Your task to perform on an android device: Open Chrome and go to settings Image 0: 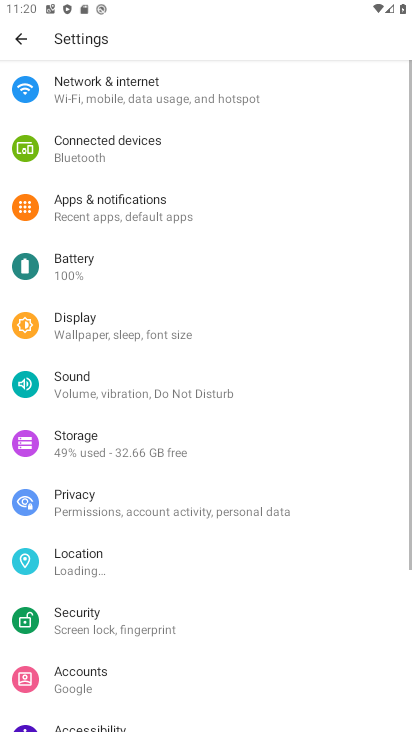
Step 0: press home button
Your task to perform on an android device: Open Chrome and go to settings Image 1: 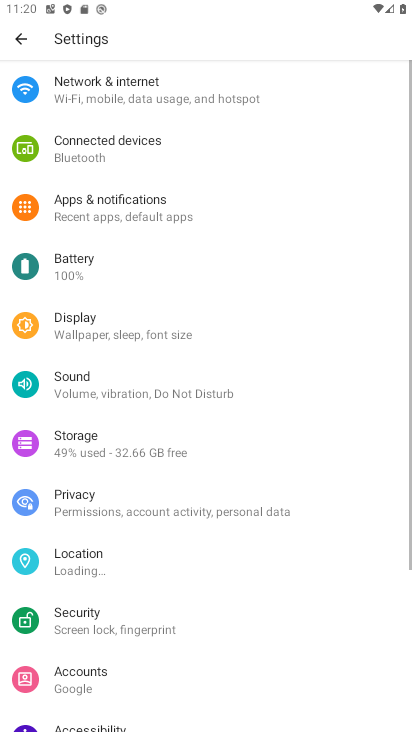
Step 1: press home button
Your task to perform on an android device: Open Chrome and go to settings Image 2: 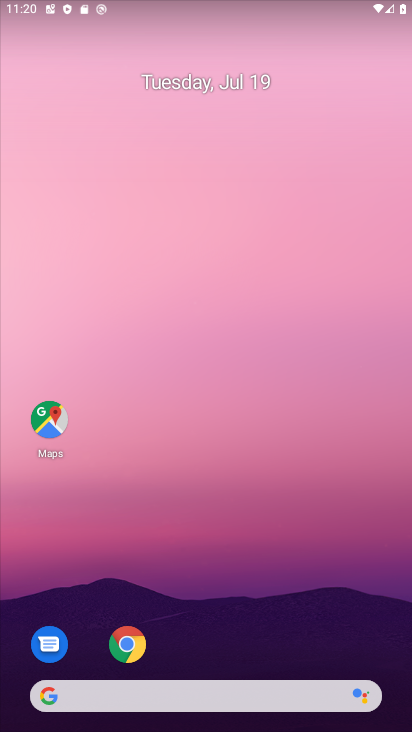
Step 2: click (122, 638)
Your task to perform on an android device: Open Chrome and go to settings Image 3: 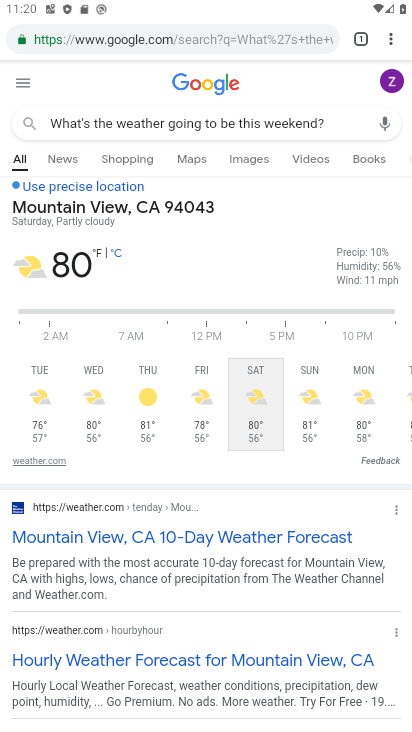
Step 3: task complete